Your task to perform on an android device: check data usage Image 0: 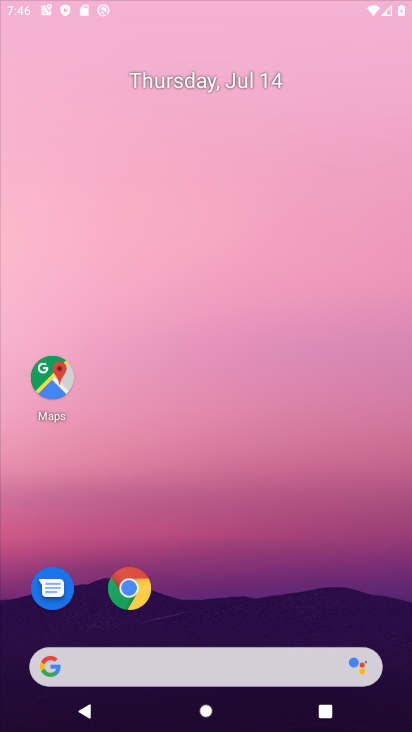
Step 0: drag from (384, 654) to (263, 0)
Your task to perform on an android device: check data usage Image 1: 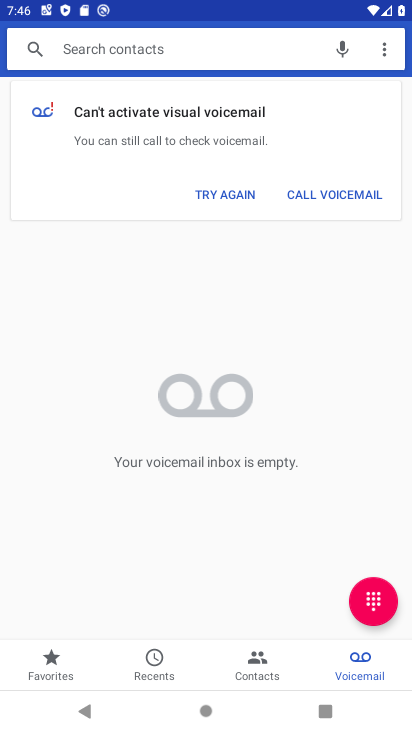
Step 1: press home button
Your task to perform on an android device: check data usage Image 2: 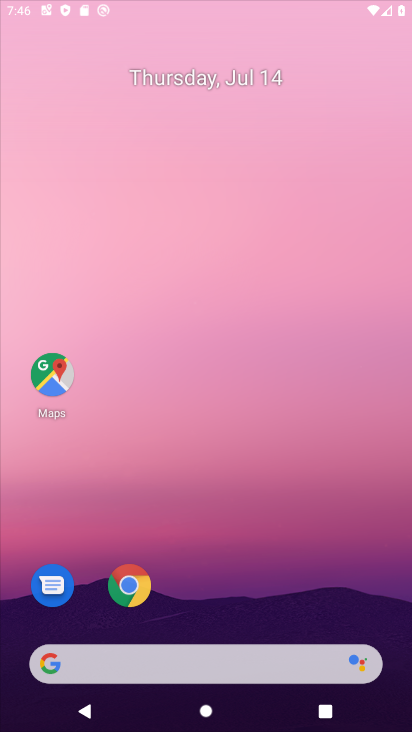
Step 2: drag from (390, 699) to (264, 8)
Your task to perform on an android device: check data usage Image 3: 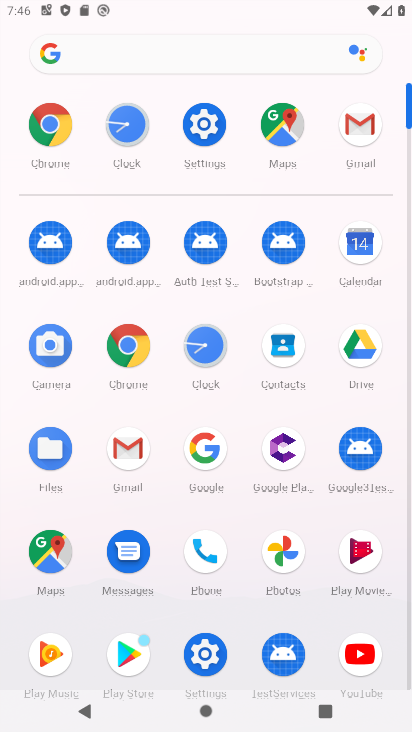
Step 3: click (210, 144)
Your task to perform on an android device: check data usage Image 4: 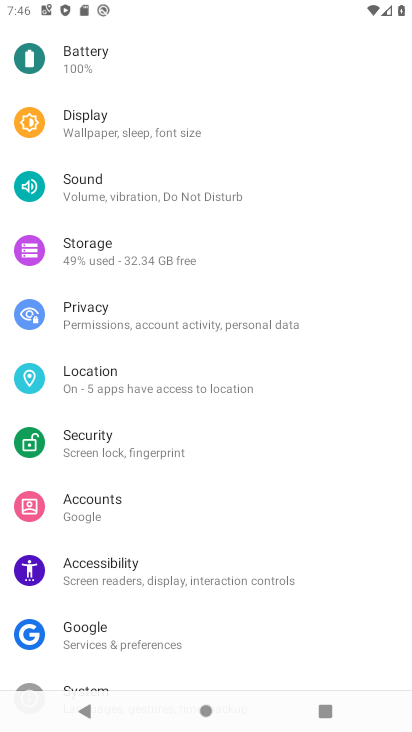
Step 4: drag from (125, 67) to (127, 615)
Your task to perform on an android device: check data usage Image 5: 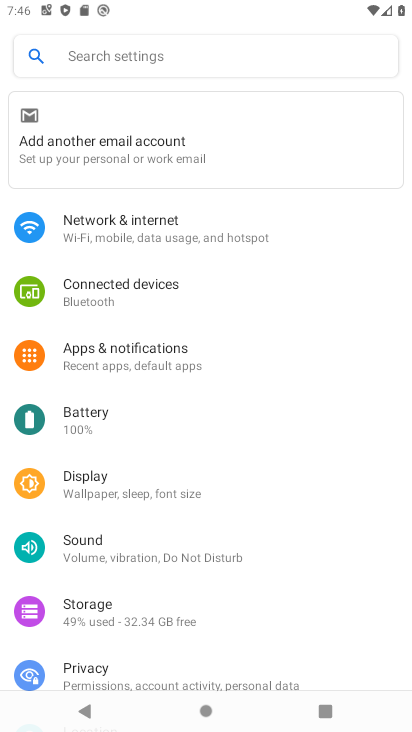
Step 5: click (165, 233)
Your task to perform on an android device: check data usage Image 6: 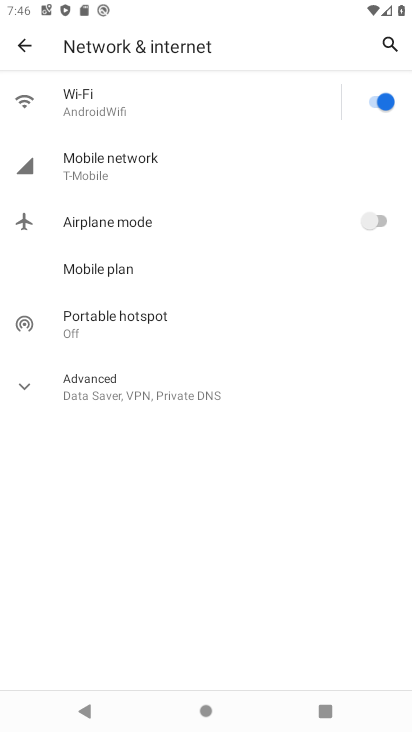
Step 6: click (115, 170)
Your task to perform on an android device: check data usage Image 7: 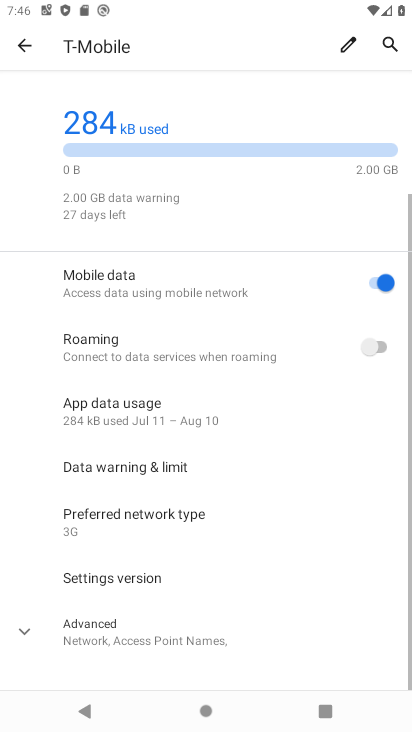
Step 7: click (130, 419)
Your task to perform on an android device: check data usage Image 8: 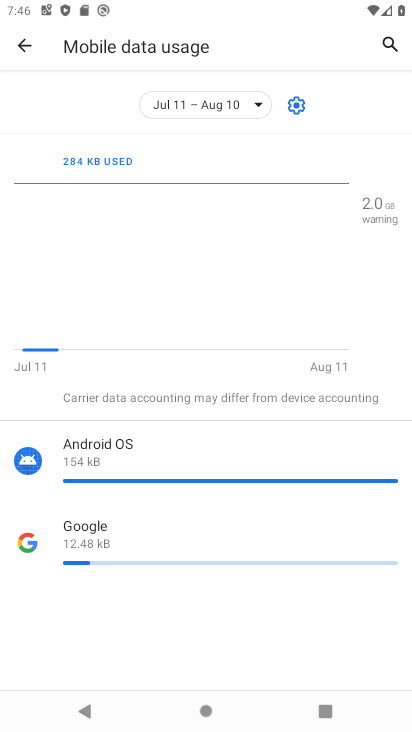
Step 8: task complete